Your task to perform on an android device: check android version Image 0: 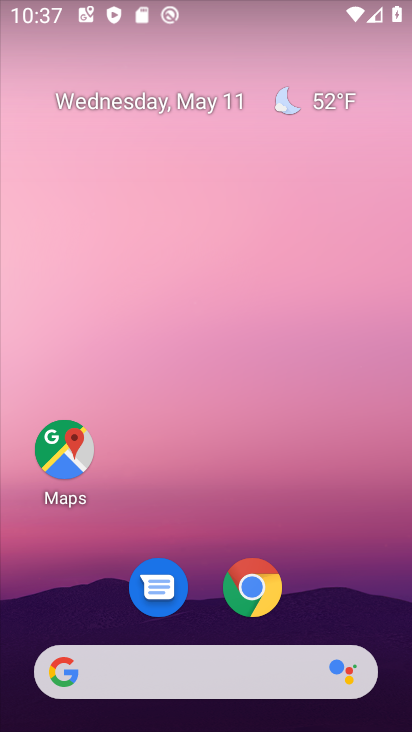
Step 0: drag from (292, 699) to (316, 112)
Your task to perform on an android device: check android version Image 1: 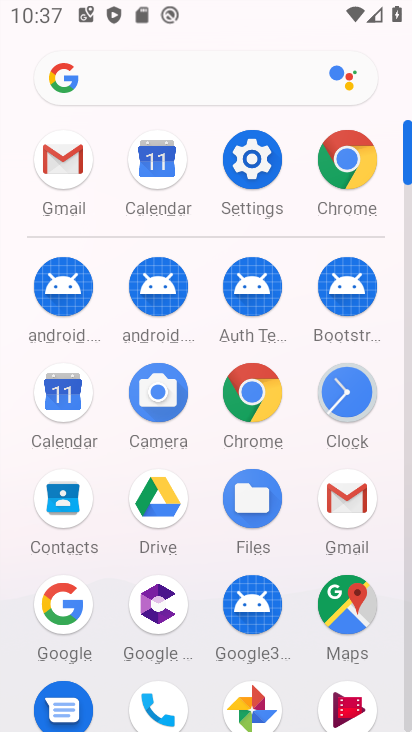
Step 1: click (254, 162)
Your task to perform on an android device: check android version Image 2: 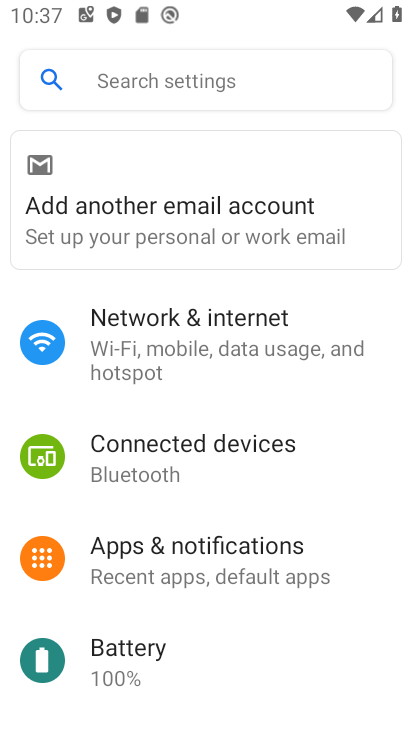
Step 2: click (181, 92)
Your task to perform on an android device: check android version Image 3: 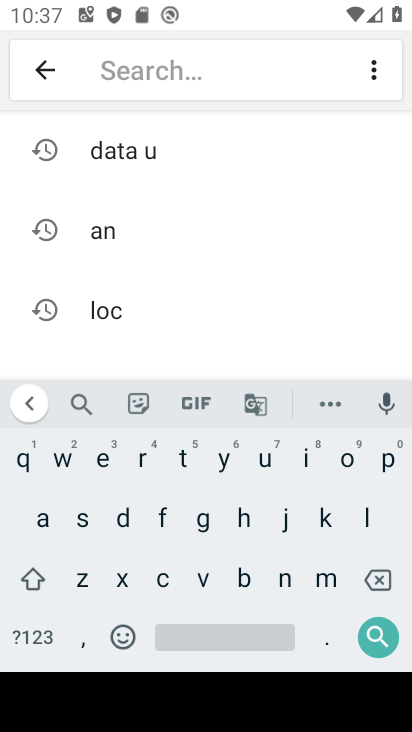
Step 3: click (36, 526)
Your task to perform on an android device: check android version Image 4: 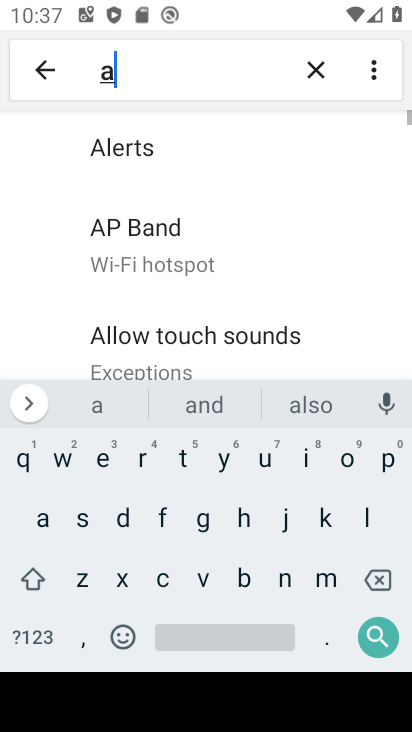
Step 4: click (283, 581)
Your task to perform on an android device: check android version Image 5: 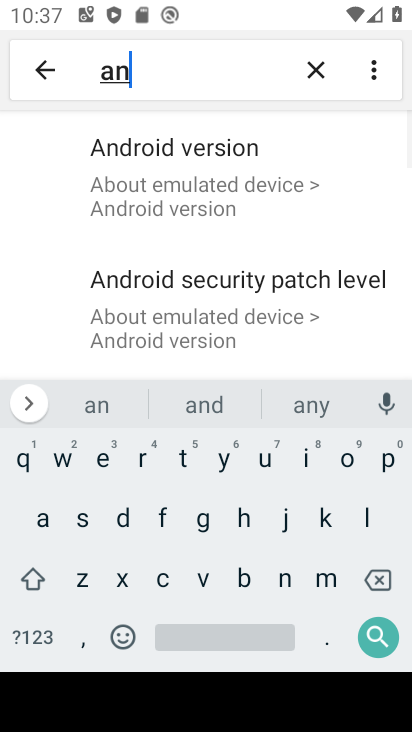
Step 5: click (192, 199)
Your task to perform on an android device: check android version Image 6: 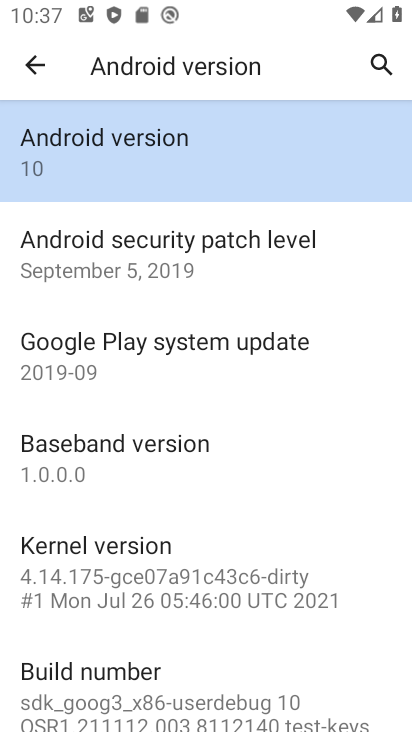
Step 6: click (190, 167)
Your task to perform on an android device: check android version Image 7: 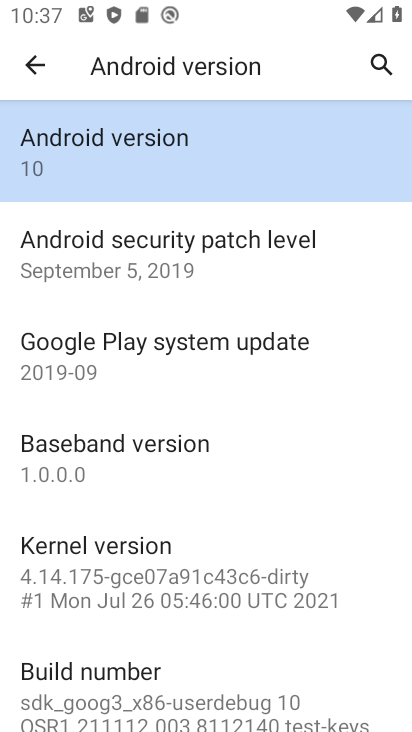
Step 7: task complete